Your task to perform on an android device: turn off improve location accuracy Image 0: 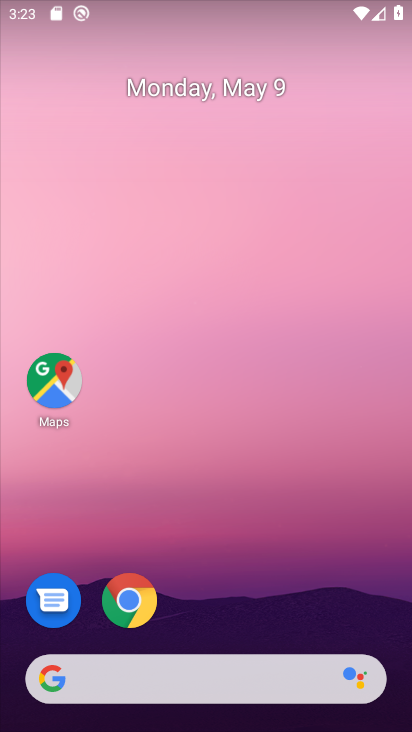
Step 0: drag from (215, 589) to (299, 29)
Your task to perform on an android device: turn off improve location accuracy Image 1: 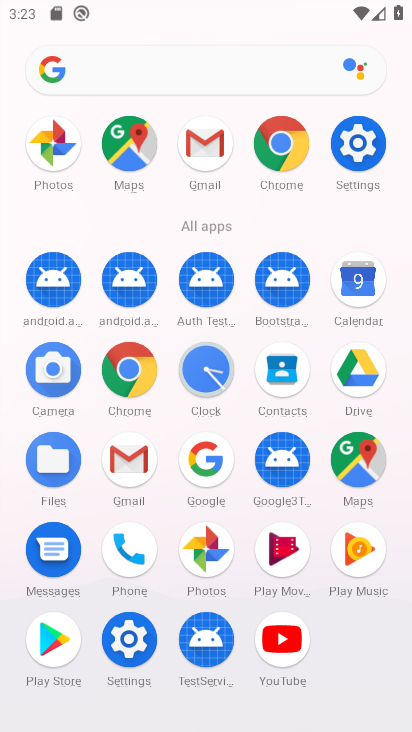
Step 1: click (343, 151)
Your task to perform on an android device: turn off improve location accuracy Image 2: 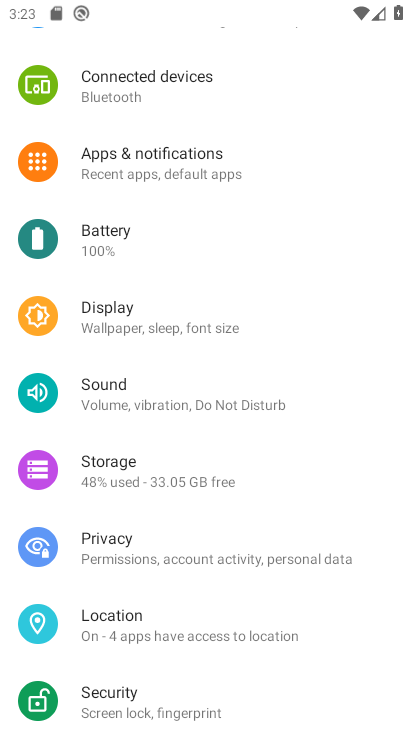
Step 2: click (141, 615)
Your task to perform on an android device: turn off improve location accuracy Image 3: 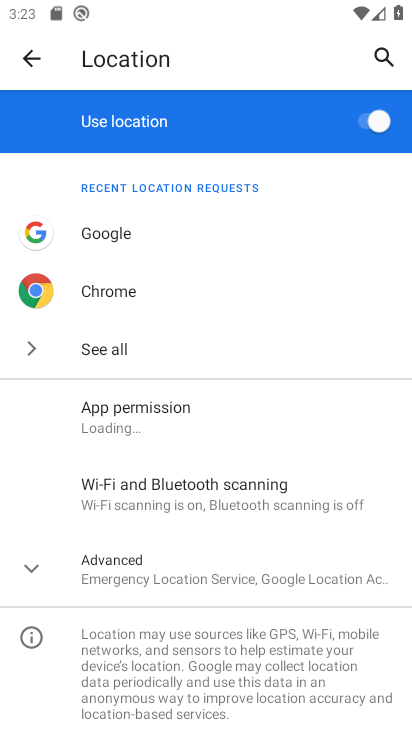
Step 3: click (169, 578)
Your task to perform on an android device: turn off improve location accuracy Image 4: 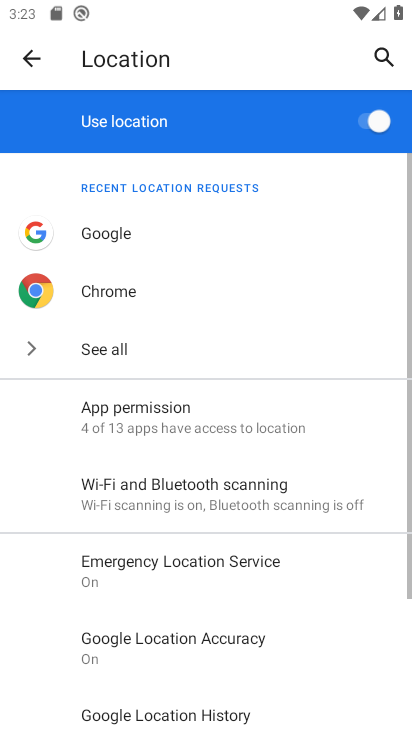
Step 4: drag from (148, 596) to (210, 433)
Your task to perform on an android device: turn off improve location accuracy Image 5: 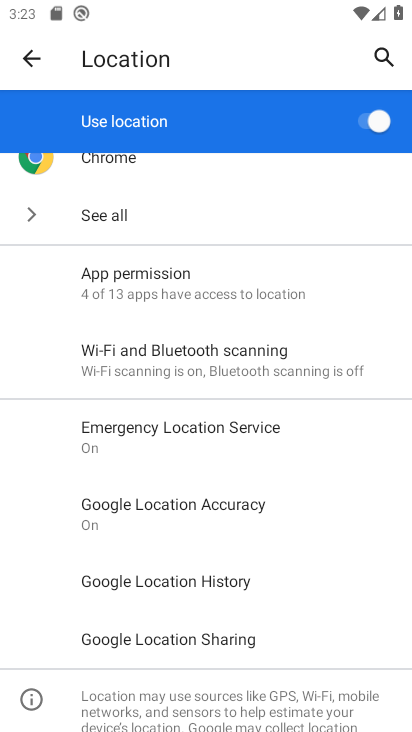
Step 5: click (177, 521)
Your task to perform on an android device: turn off improve location accuracy Image 6: 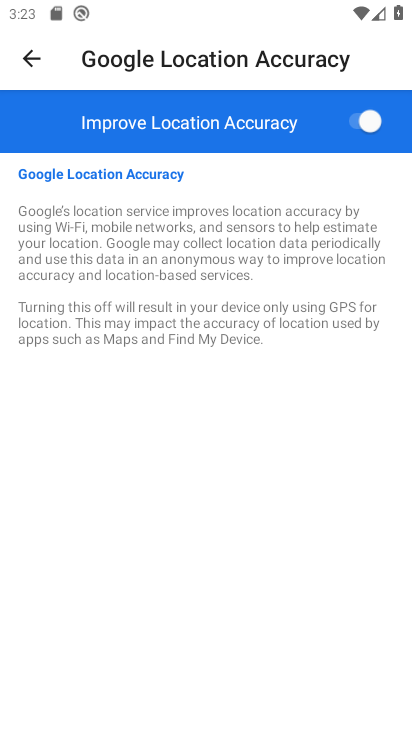
Step 6: click (352, 127)
Your task to perform on an android device: turn off improve location accuracy Image 7: 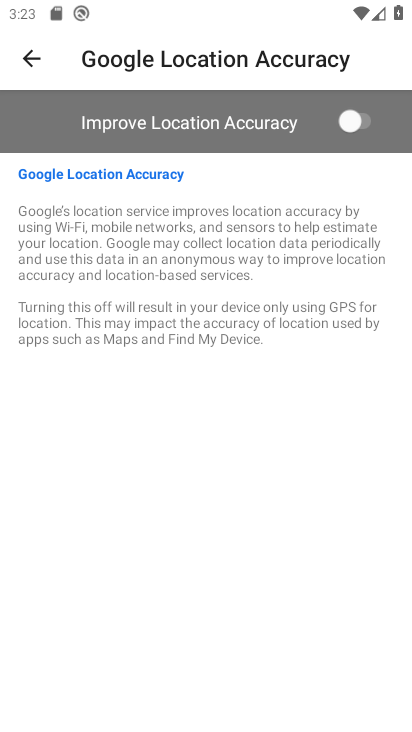
Step 7: task complete